Your task to perform on an android device: create a new album in the google photos Image 0: 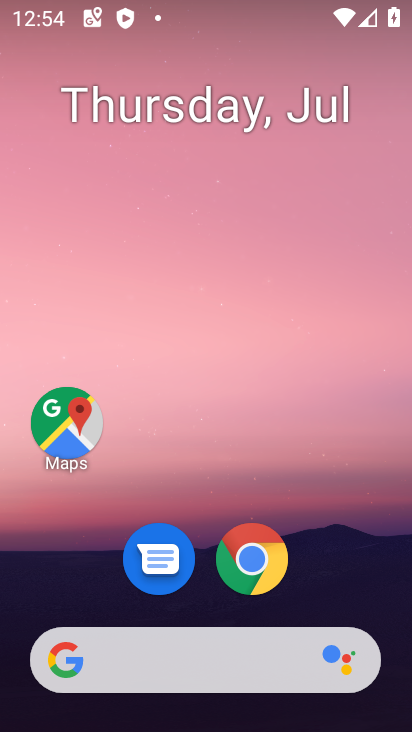
Step 0: drag from (383, 596) to (242, 115)
Your task to perform on an android device: create a new album in the google photos Image 1: 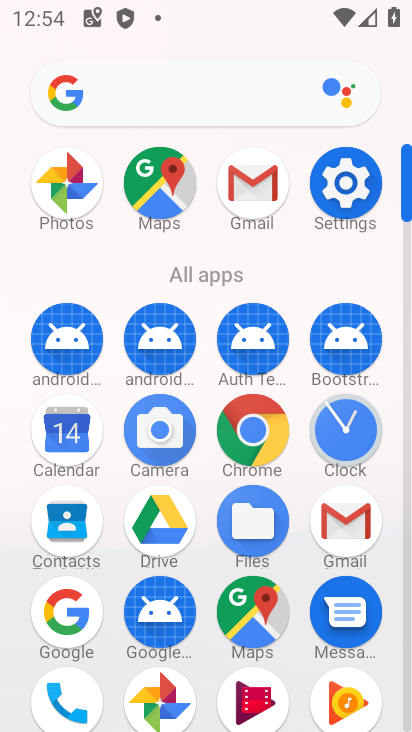
Step 1: click (50, 213)
Your task to perform on an android device: create a new album in the google photos Image 2: 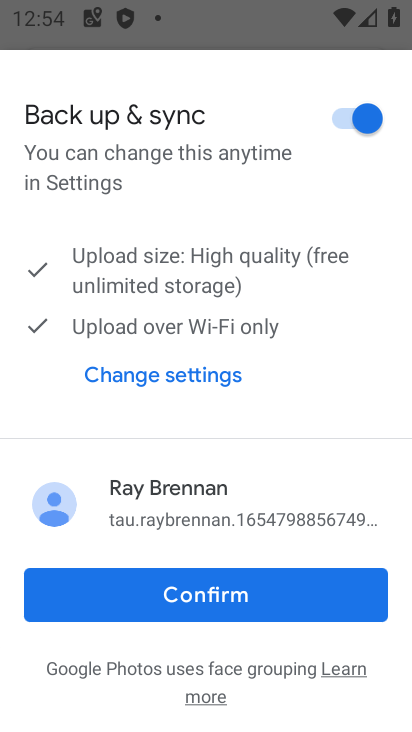
Step 2: click (171, 590)
Your task to perform on an android device: create a new album in the google photos Image 3: 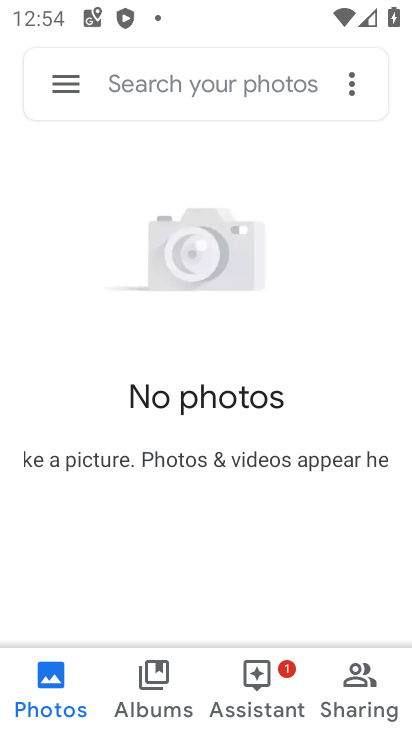
Step 3: click (166, 663)
Your task to perform on an android device: create a new album in the google photos Image 4: 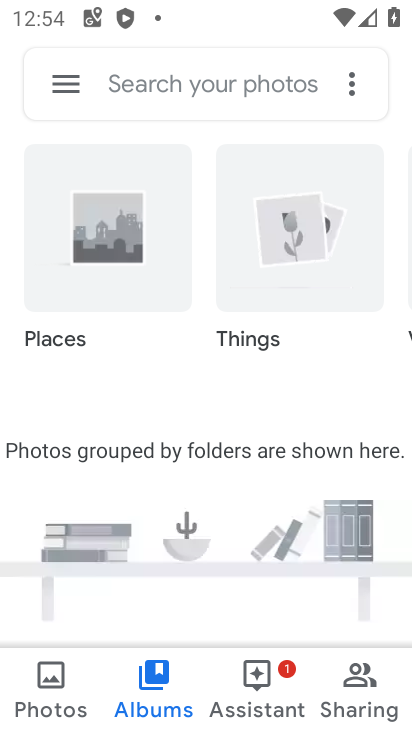
Step 4: click (275, 680)
Your task to perform on an android device: create a new album in the google photos Image 5: 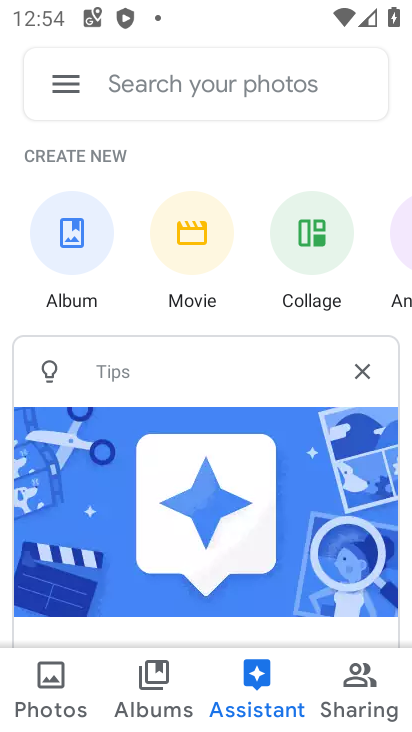
Step 5: click (78, 238)
Your task to perform on an android device: create a new album in the google photos Image 6: 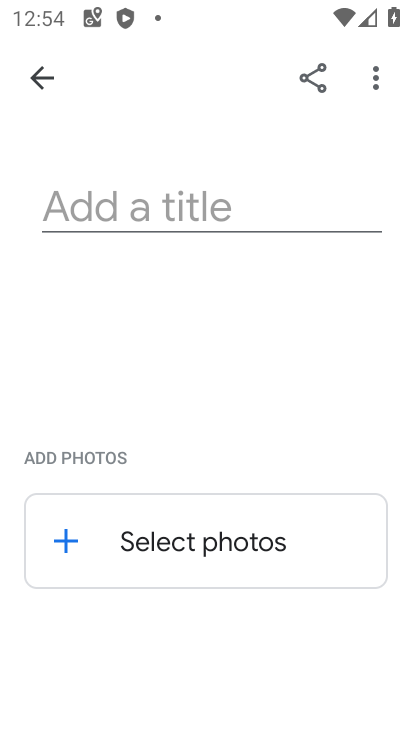
Step 6: click (149, 216)
Your task to perform on an android device: create a new album in the google photos Image 7: 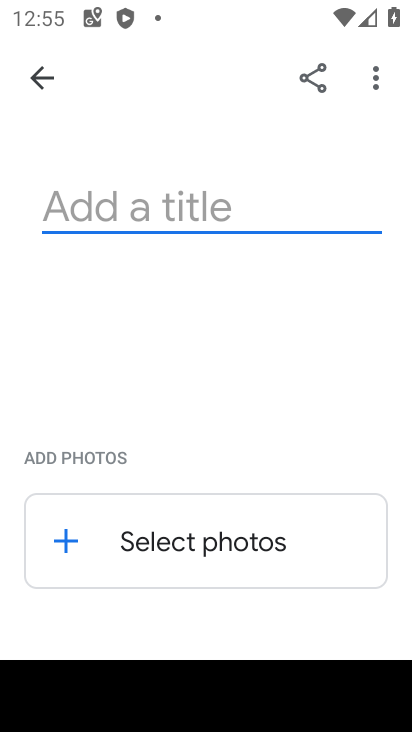
Step 7: type "bdjndjdn"
Your task to perform on an android device: create a new album in the google photos Image 8: 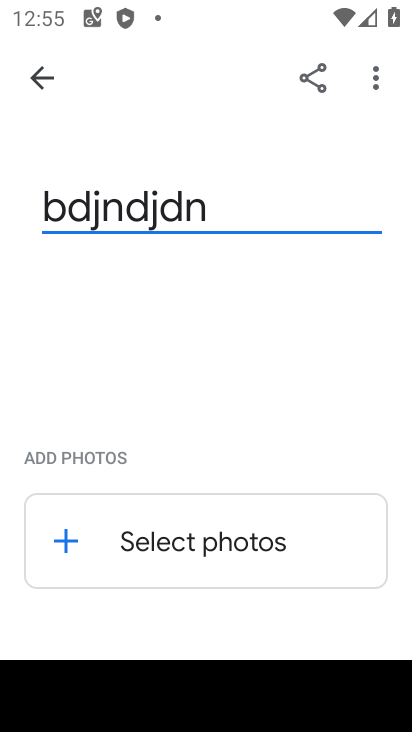
Step 8: click (316, 529)
Your task to perform on an android device: create a new album in the google photos Image 9: 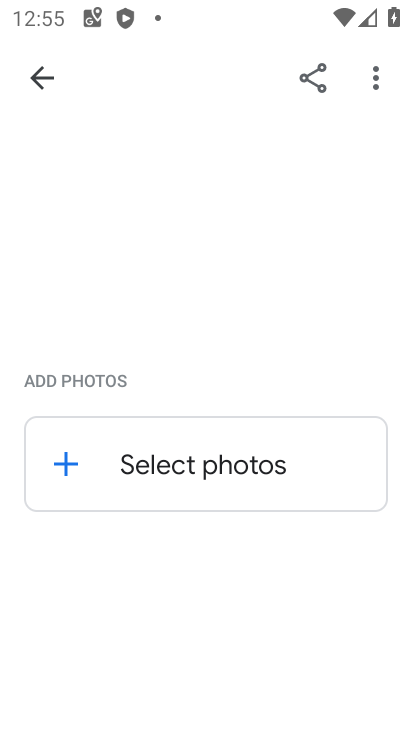
Step 9: click (153, 469)
Your task to perform on an android device: create a new album in the google photos Image 10: 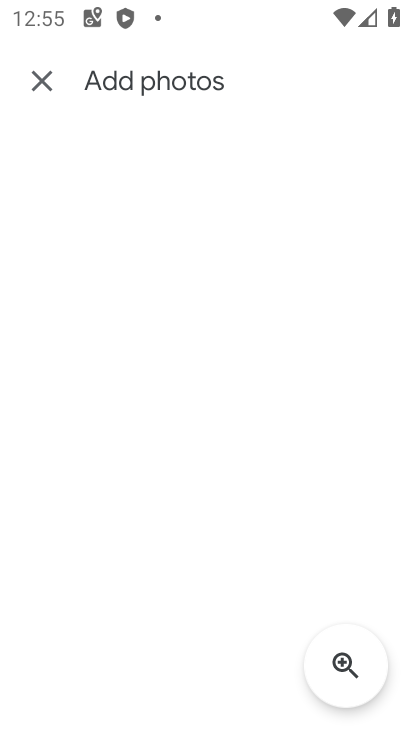
Step 10: task complete